Your task to perform on an android device: check google app version Image 0: 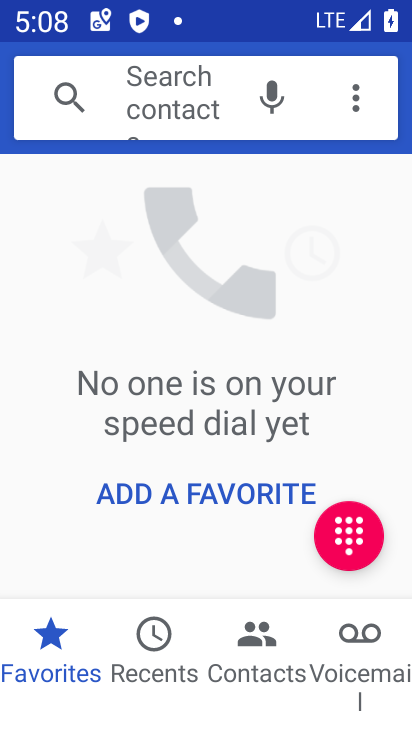
Step 0: press home button
Your task to perform on an android device: check google app version Image 1: 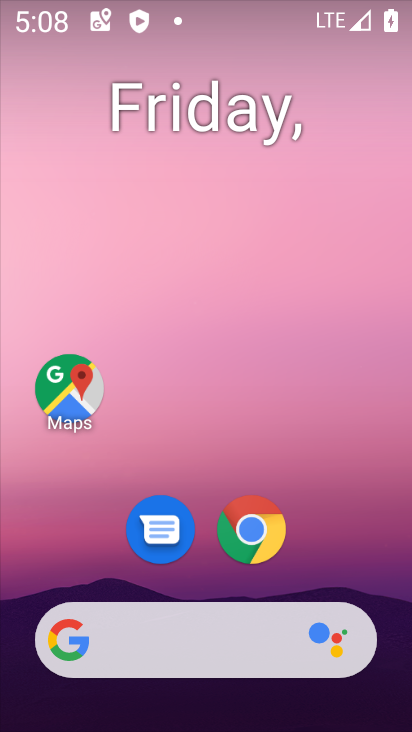
Step 1: drag from (340, 542) to (263, 28)
Your task to perform on an android device: check google app version Image 2: 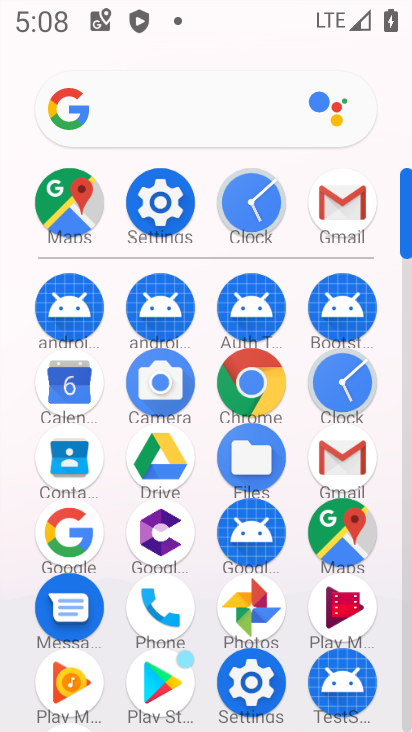
Step 2: click (73, 542)
Your task to perform on an android device: check google app version Image 3: 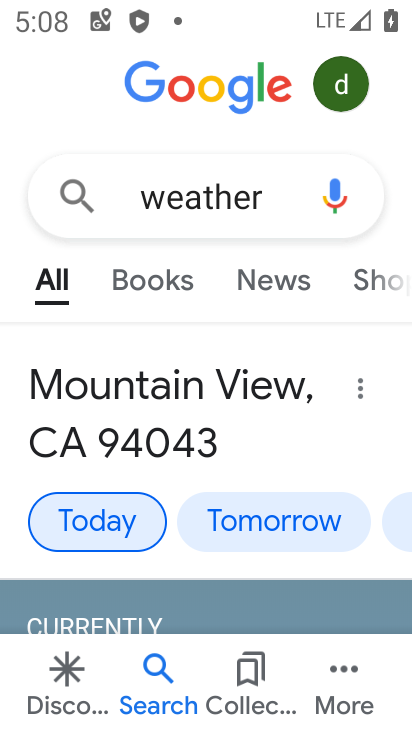
Step 3: click (340, 691)
Your task to perform on an android device: check google app version Image 4: 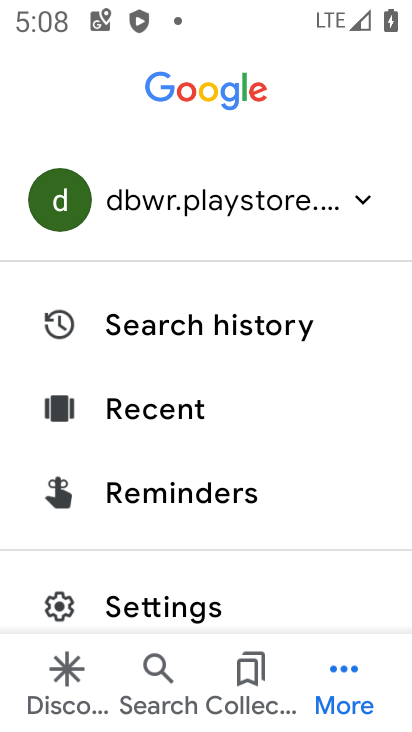
Step 4: click (161, 598)
Your task to perform on an android device: check google app version Image 5: 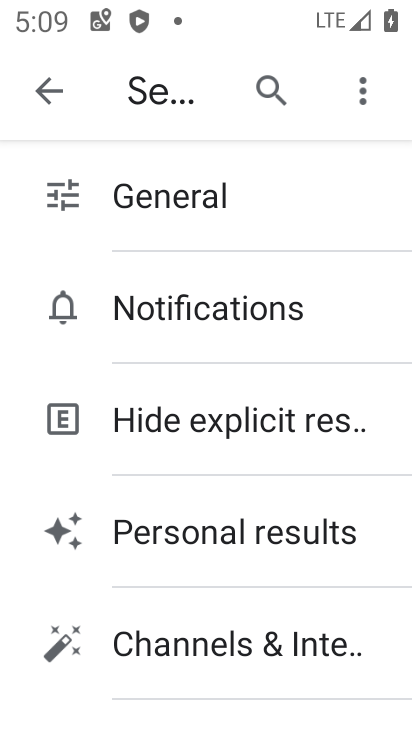
Step 5: drag from (198, 627) to (197, 191)
Your task to perform on an android device: check google app version Image 6: 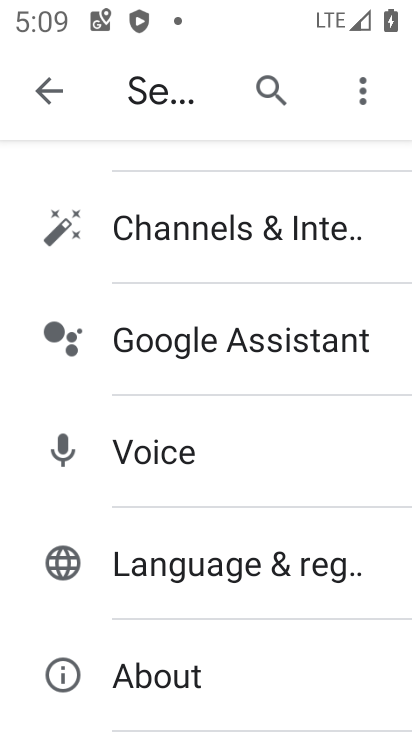
Step 6: click (186, 666)
Your task to perform on an android device: check google app version Image 7: 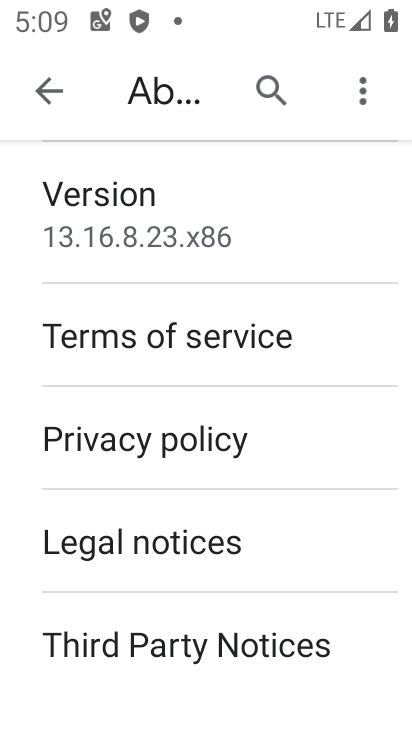
Step 7: click (102, 224)
Your task to perform on an android device: check google app version Image 8: 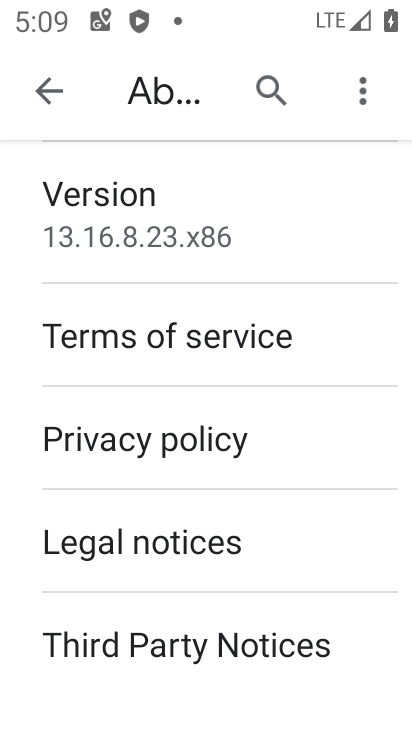
Step 8: task complete